Your task to perform on an android device: turn off javascript in the chrome app Image 0: 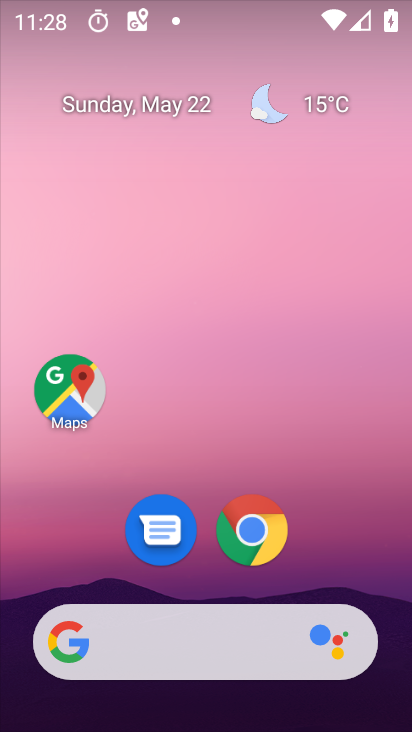
Step 0: press home button
Your task to perform on an android device: turn off javascript in the chrome app Image 1: 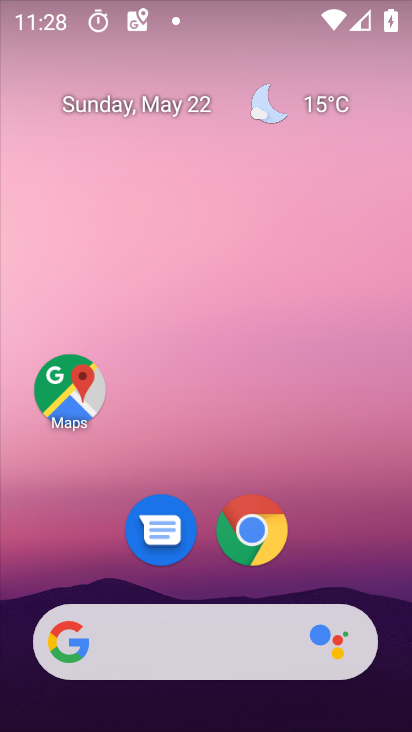
Step 1: click (254, 527)
Your task to perform on an android device: turn off javascript in the chrome app Image 2: 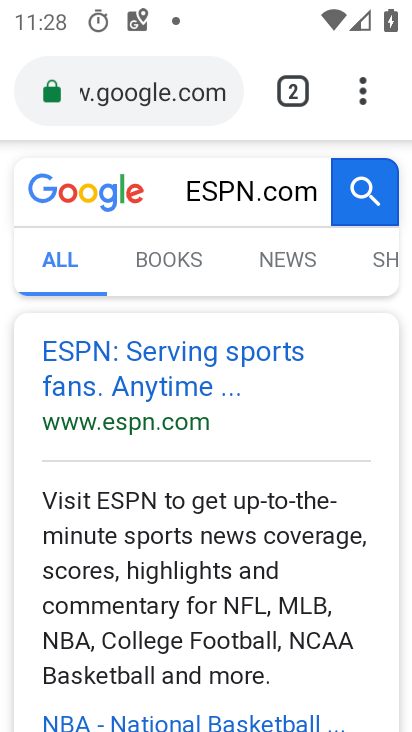
Step 2: click (354, 95)
Your task to perform on an android device: turn off javascript in the chrome app Image 3: 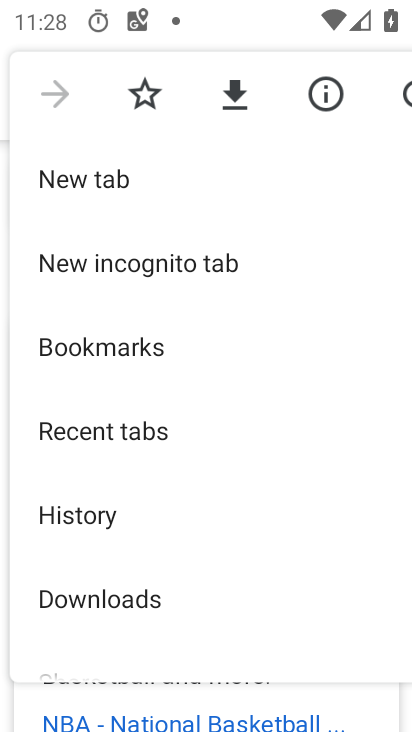
Step 3: drag from (264, 613) to (298, 230)
Your task to perform on an android device: turn off javascript in the chrome app Image 4: 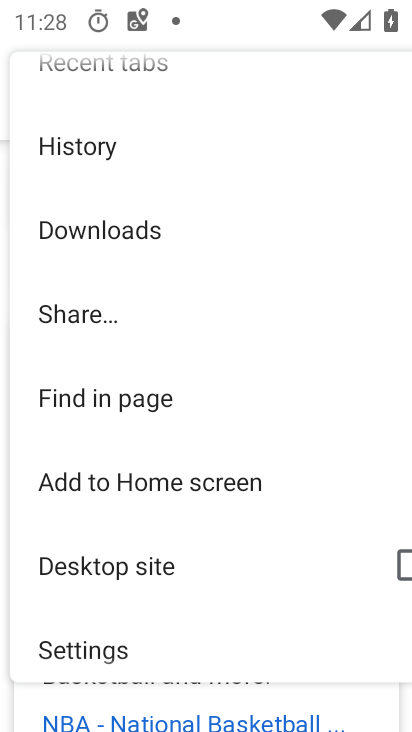
Step 4: drag from (255, 669) to (299, 365)
Your task to perform on an android device: turn off javascript in the chrome app Image 5: 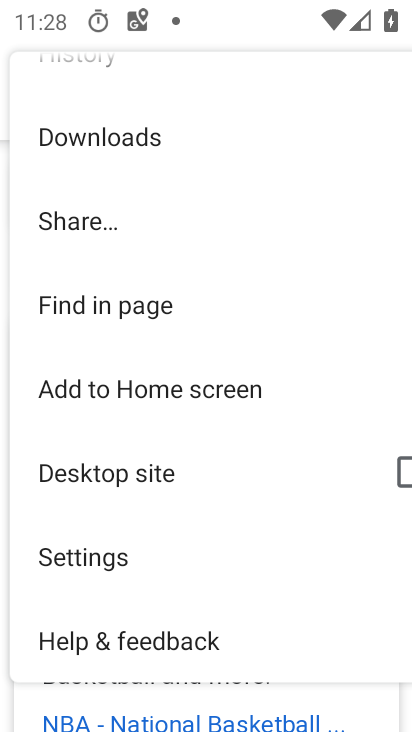
Step 5: drag from (290, 654) to (308, 298)
Your task to perform on an android device: turn off javascript in the chrome app Image 6: 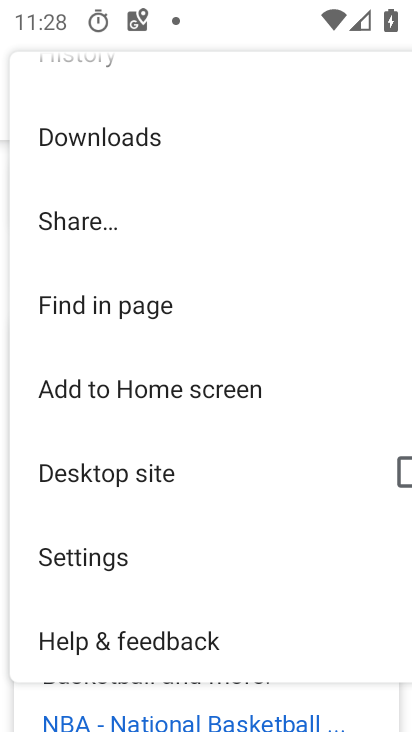
Step 6: click (109, 559)
Your task to perform on an android device: turn off javascript in the chrome app Image 7: 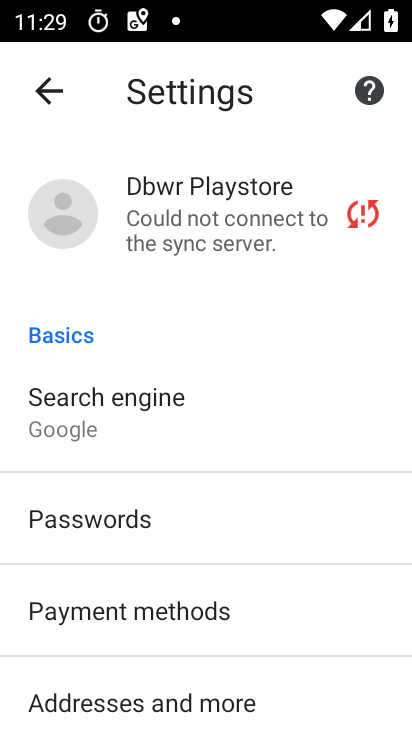
Step 7: drag from (303, 707) to (314, 325)
Your task to perform on an android device: turn off javascript in the chrome app Image 8: 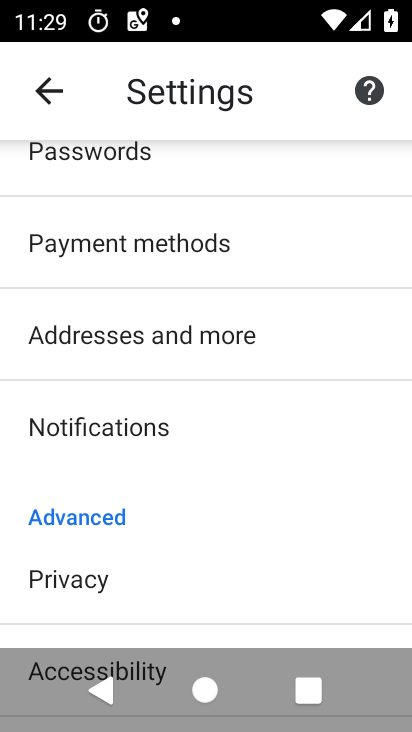
Step 8: drag from (249, 635) to (275, 397)
Your task to perform on an android device: turn off javascript in the chrome app Image 9: 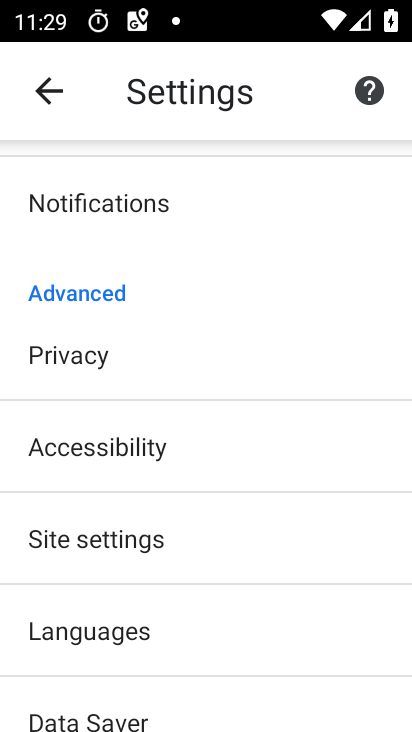
Step 9: drag from (290, 596) to (297, 391)
Your task to perform on an android device: turn off javascript in the chrome app Image 10: 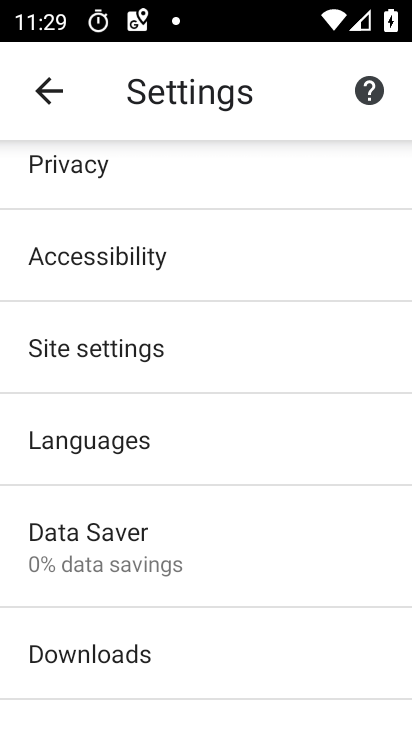
Step 10: drag from (274, 689) to (280, 354)
Your task to perform on an android device: turn off javascript in the chrome app Image 11: 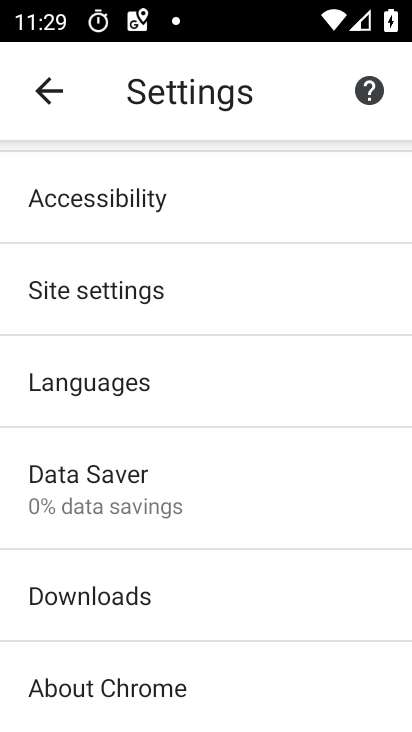
Step 11: click (109, 293)
Your task to perform on an android device: turn off javascript in the chrome app Image 12: 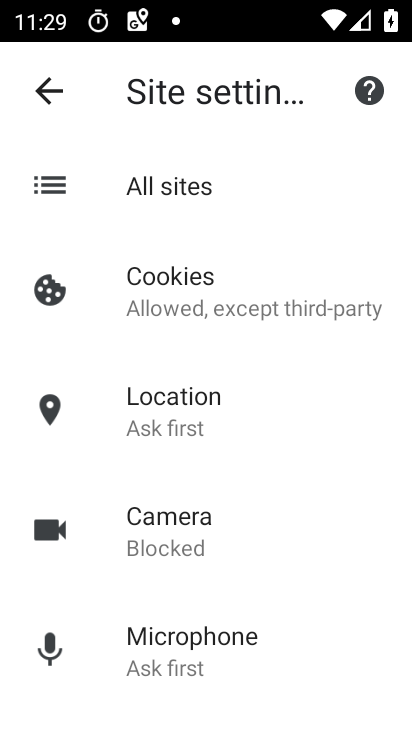
Step 12: drag from (320, 678) to (327, 480)
Your task to perform on an android device: turn off javascript in the chrome app Image 13: 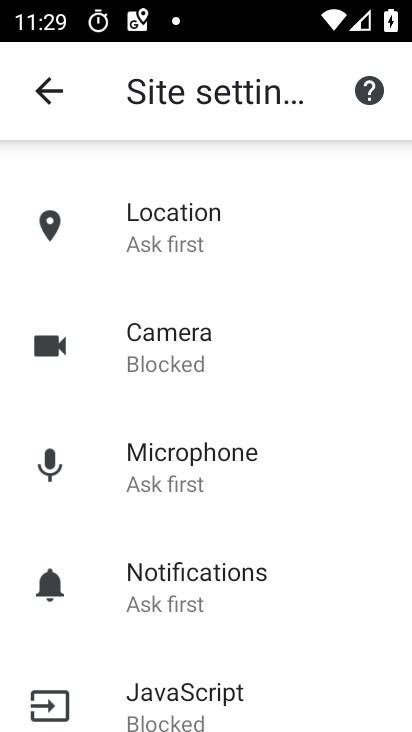
Step 13: click (172, 691)
Your task to perform on an android device: turn off javascript in the chrome app Image 14: 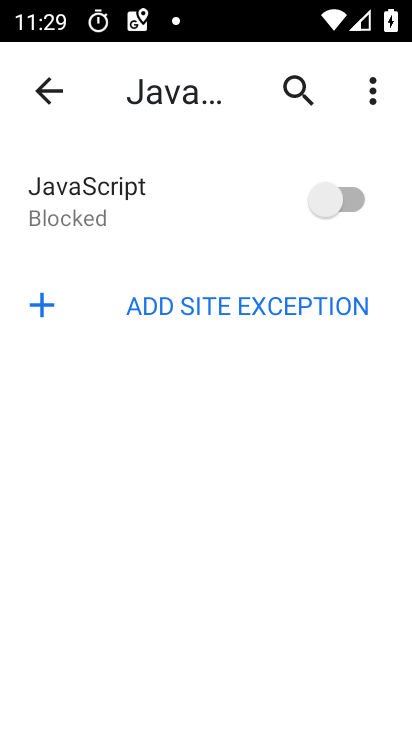
Step 14: click (348, 196)
Your task to perform on an android device: turn off javascript in the chrome app Image 15: 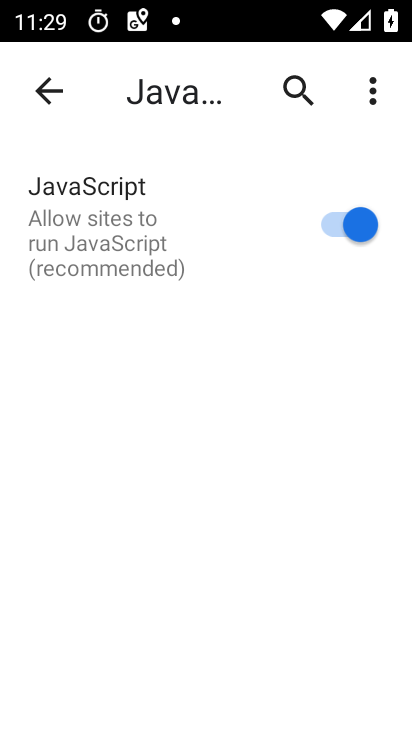
Step 15: click (331, 217)
Your task to perform on an android device: turn off javascript in the chrome app Image 16: 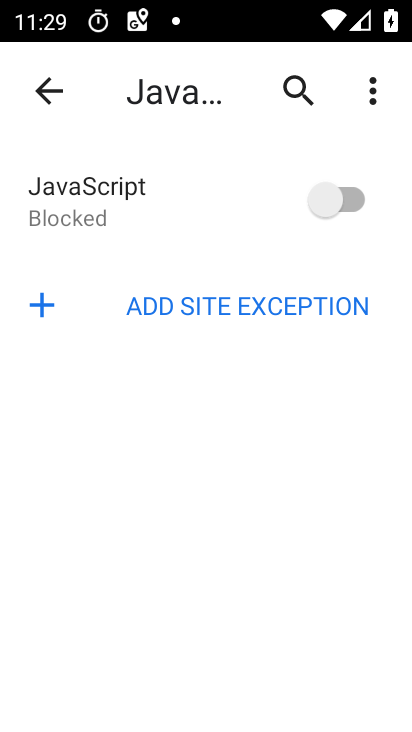
Step 16: task complete